Your task to perform on an android device: clear all cookies in the chrome app Image 0: 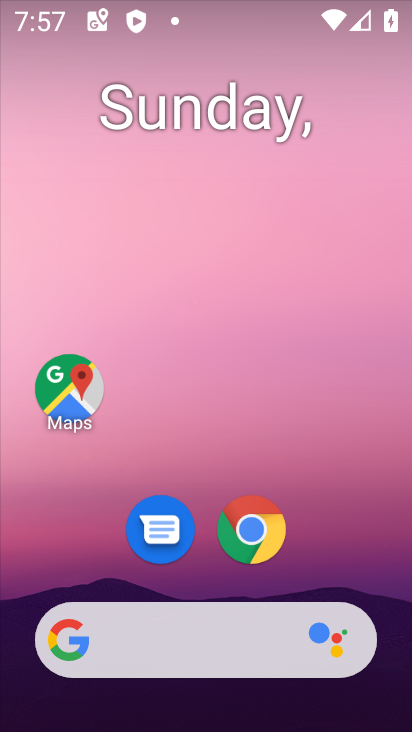
Step 0: drag from (400, 560) to (349, 122)
Your task to perform on an android device: clear all cookies in the chrome app Image 1: 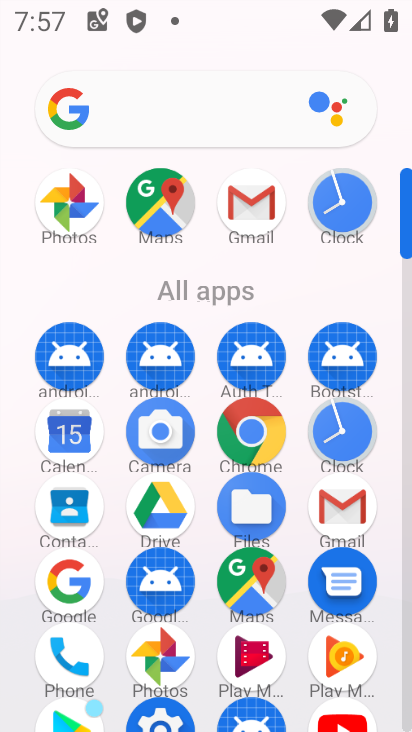
Step 1: click (283, 423)
Your task to perform on an android device: clear all cookies in the chrome app Image 2: 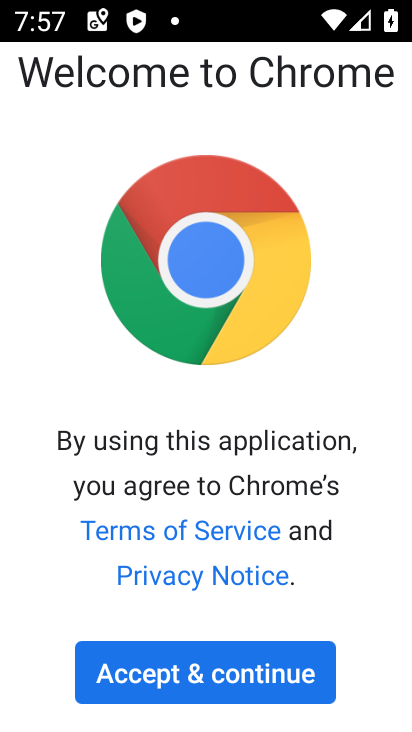
Step 2: click (218, 674)
Your task to perform on an android device: clear all cookies in the chrome app Image 3: 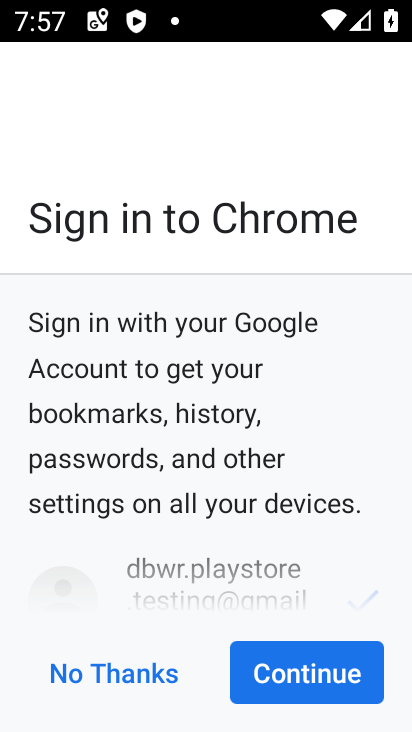
Step 3: click (290, 676)
Your task to perform on an android device: clear all cookies in the chrome app Image 4: 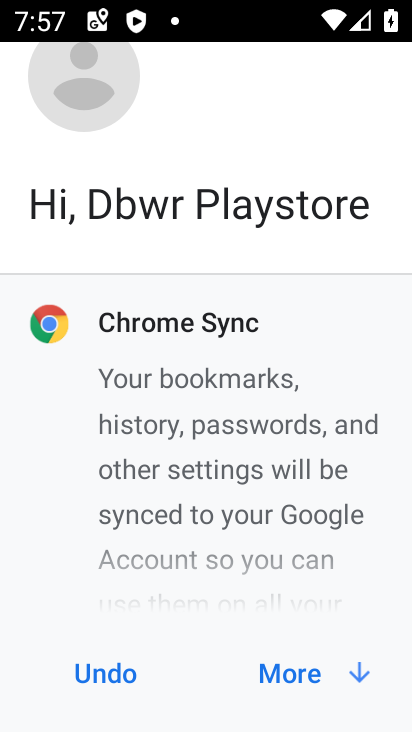
Step 4: click (288, 675)
Your task to perform on an android device: clear all cookies in the chrome app Image 5: 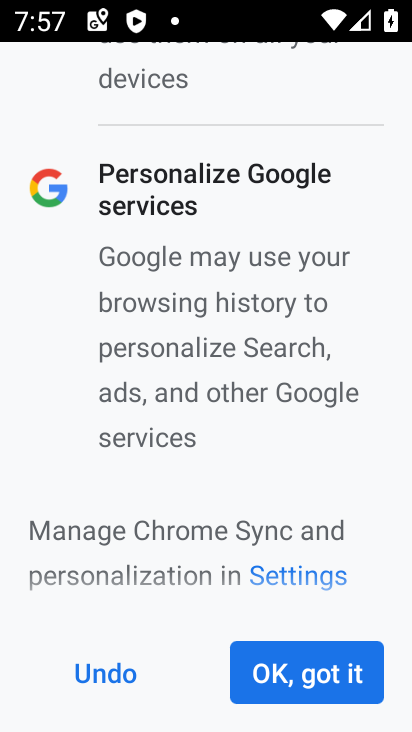
Step 5: click (288, 675)
Your task to perform on an android device: clear all cookies in the chrome app Image 6: 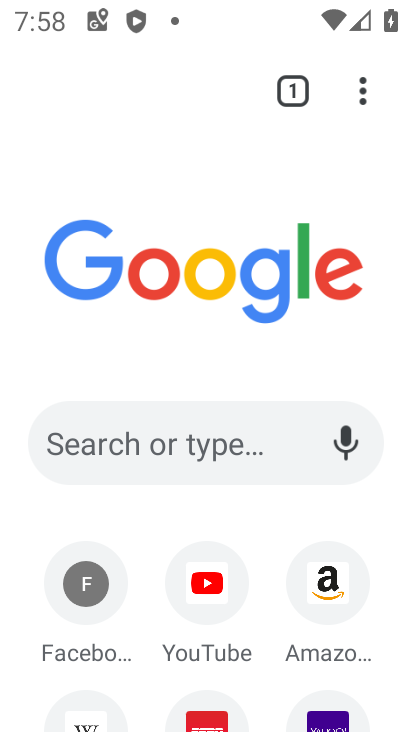
Step 6: drag from (369, 102) to (135, 505)
Your task to perform on an android device: clear all cookies in the chrome app Image 7: 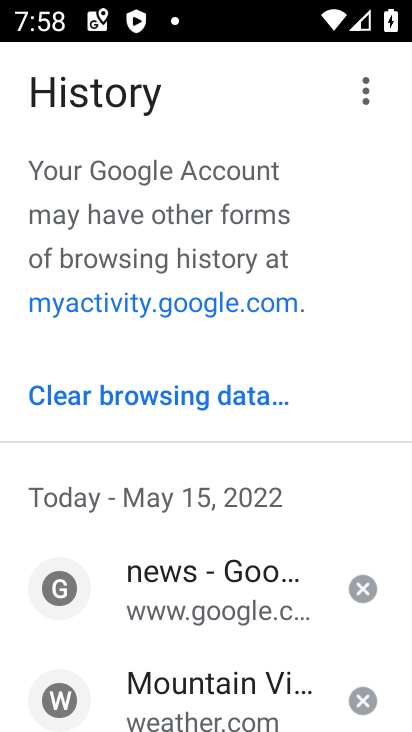
Step 7: click (174, 391)
Your task to perform on an android device: clear all cookies in the chrome app Image 8: 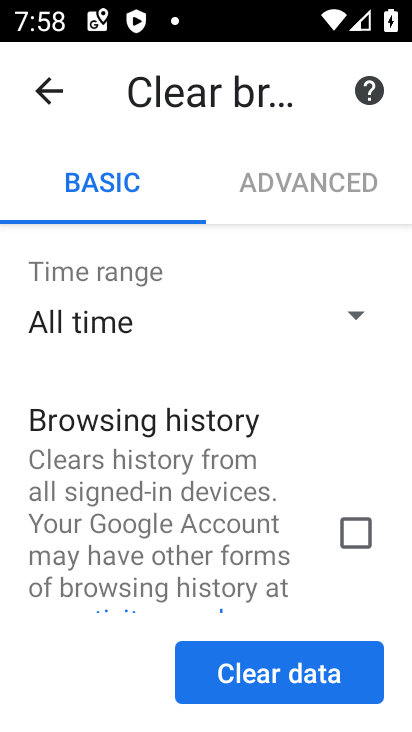
Step 8: click (297, 682)
Your task to perform on an android device: clear all cookies in the chrome app Image 9: 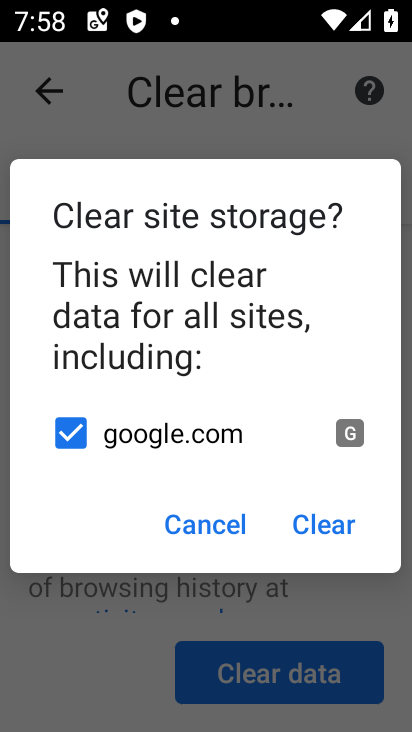
Step 9: click (195, 508)
Your task to perform on an android device: clear all cookies in the chrome app Image 10: 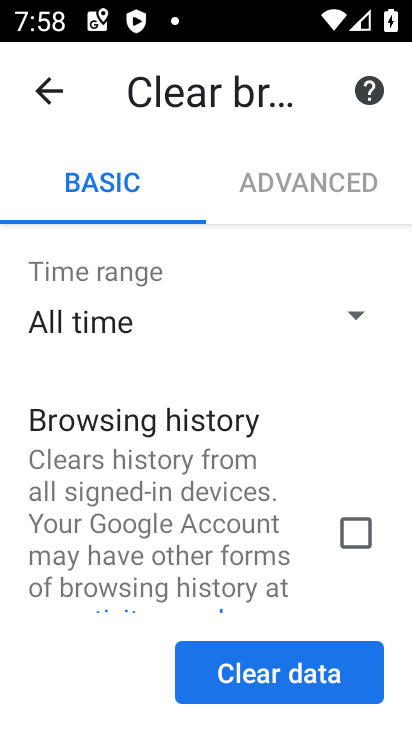
Step 10: drag from (275, 551) to (279, 271)
Your task to perform on an android device: clear all cookies in the chrome app Image 11: 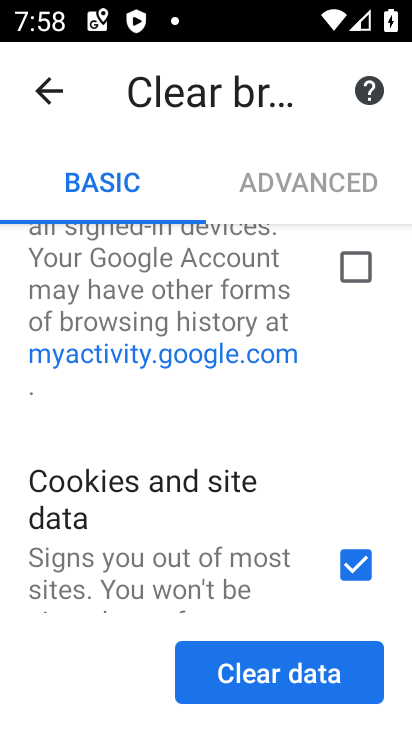
Step 11: click (252, 696)
Your task to perform on an android device: clear all cookies in the chrome app Image 12: 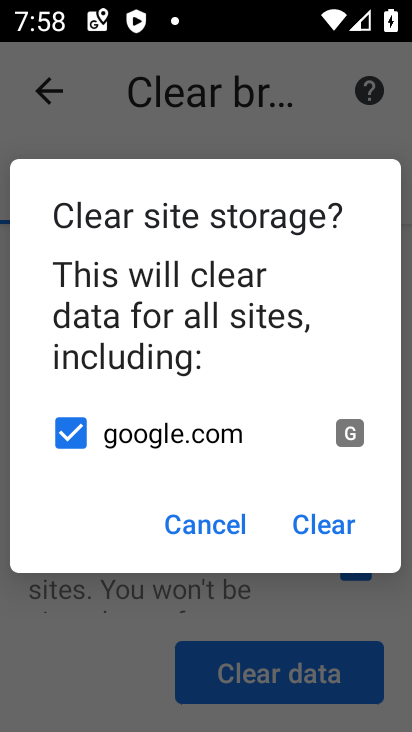
Step 12: click (314, 521)
Your task to perform on an android device: clear all cookies in the chrome app Image 13: 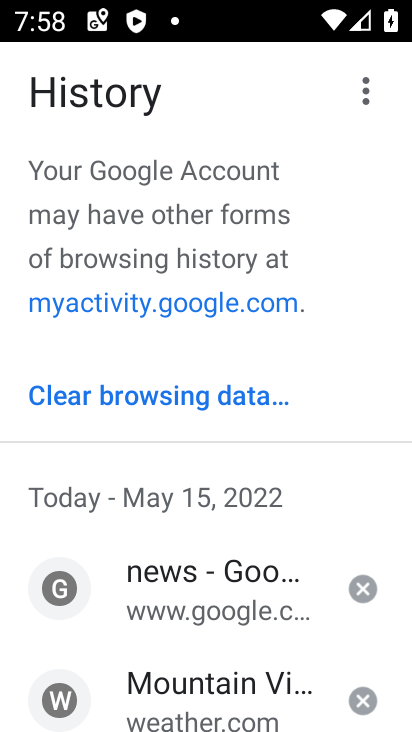
Step 13: task complete